Your task to perform on an android device: set the stopwatch Image 0: 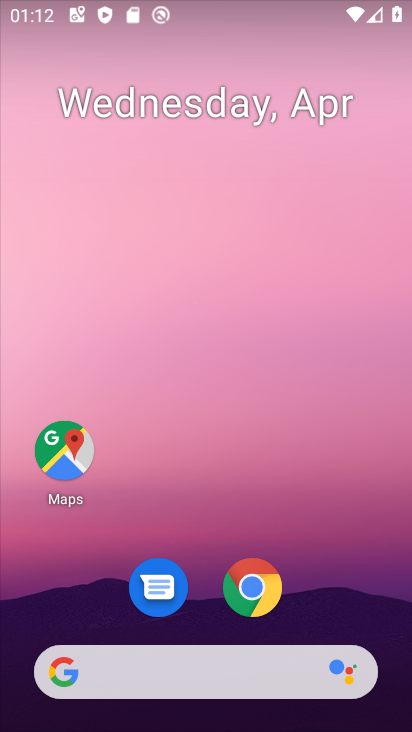
Step 0: drag from (368, 583) to (278, 25)
Your task to perform on an android device: set the stopwatch Image 1: 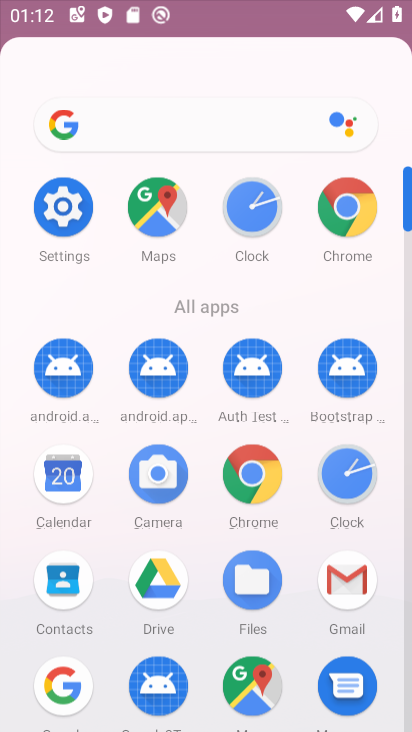
Step 1: click (240, 184)
Your task to perform on an android device: set the stopwatch Image 2: 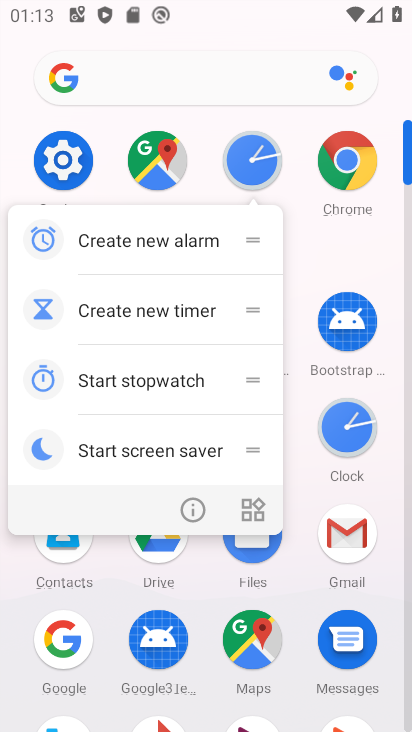
Step 2: click (236, 162)
Your task to perform on an android device: set the stopwatch Image 3: 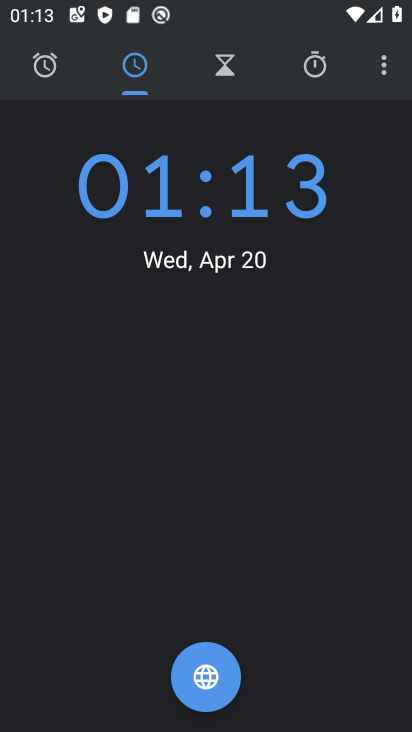
Step 3: click (310, 58)
Your task to perform on an android device: set the stopwatch Image 4: 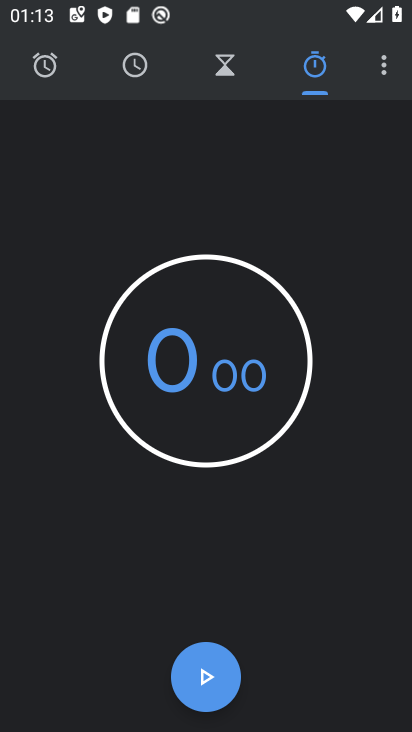
Step 4: click (212, 681)
Your task to perform on an android device: set the stopwatch Image 5: 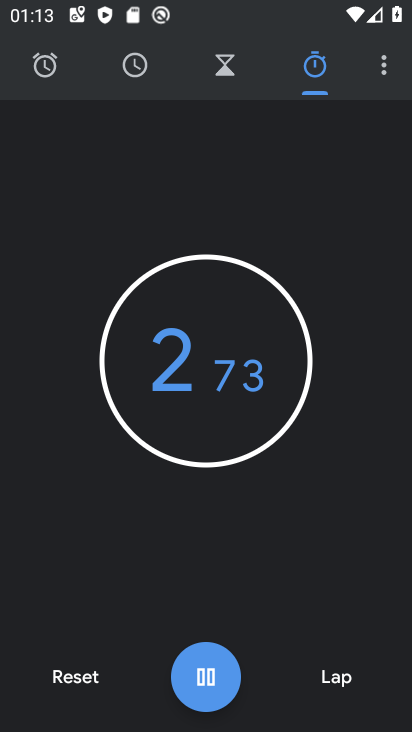
Step 5: click (202, 678)
Your task to perform on an android device: set the stopwatch Image 6: 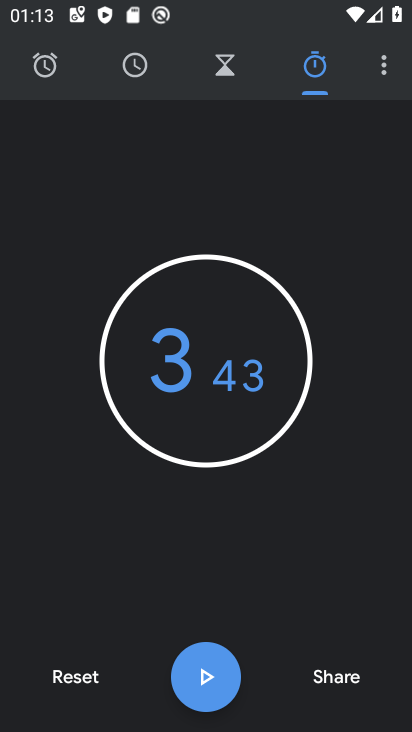
Step 6: task complete